Your task to perform on an android device: turn vacation reply on in the gmail app Image 0: 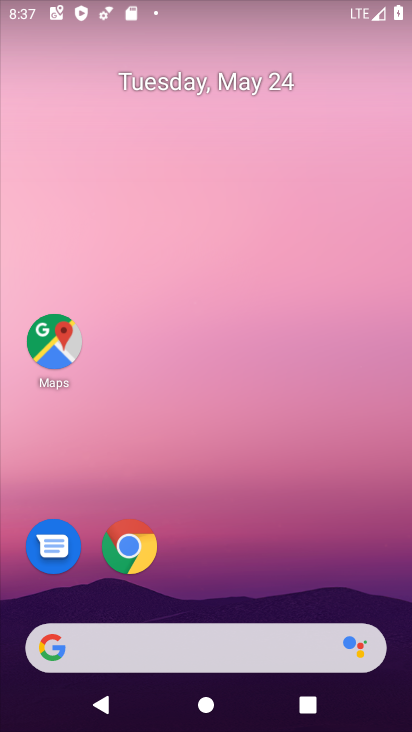
Step 0: drag from (270, 569) to (275, 0)
Your task to perform on an android device: turn vacation reply on in the gmail app Image 1: 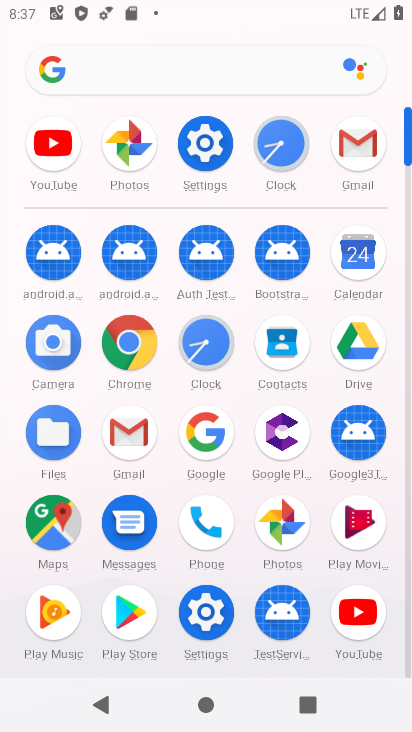
Step 1: click (357, 154)
Your task to perform on an android device: turn vacation reply on in the gmail app Image 2: 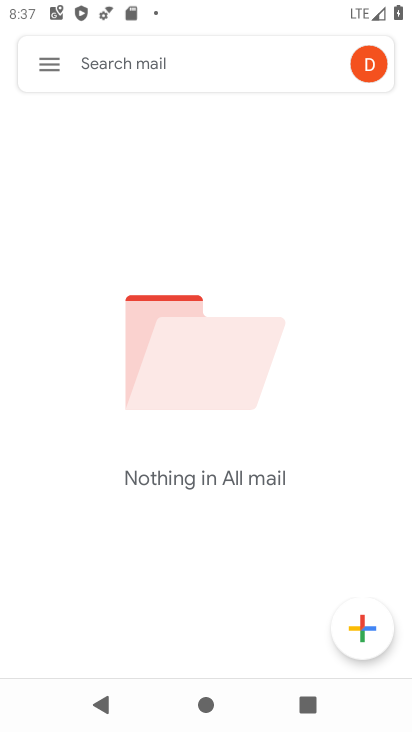
Step 2: click (48, 67)
Your task to perform on an android device: turn vacation reply on in the gmail app Image 3: 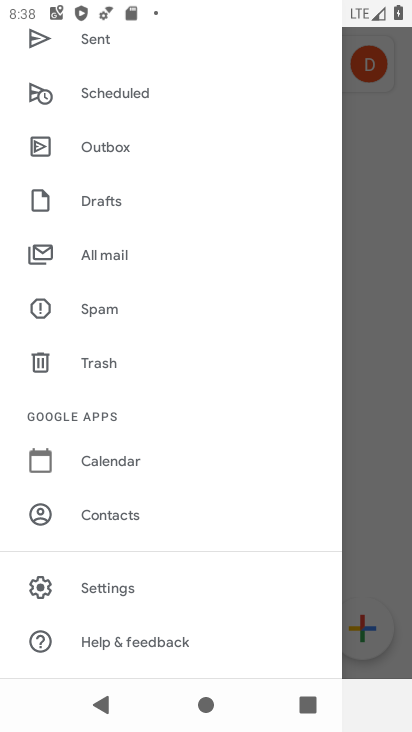
Step 3: click (143, 591)
Your task to perform on an android device: turn vacation reply on in the gmail app Image 4: 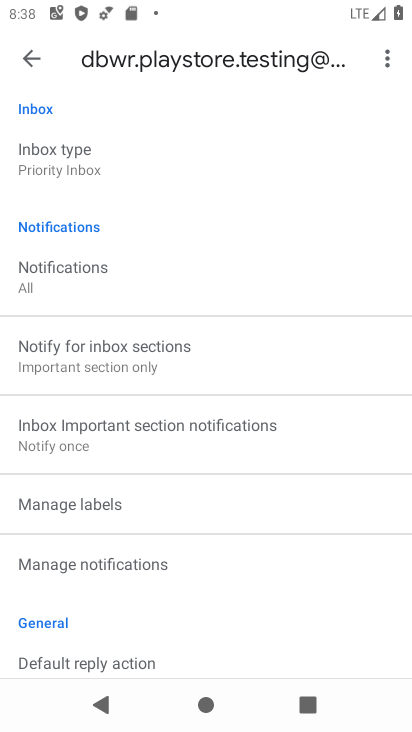
Step 4: drag from (224, 621) to (244, 1)
Your task to perform on an android device: turn vacation reply on in the gmail app Image 5: 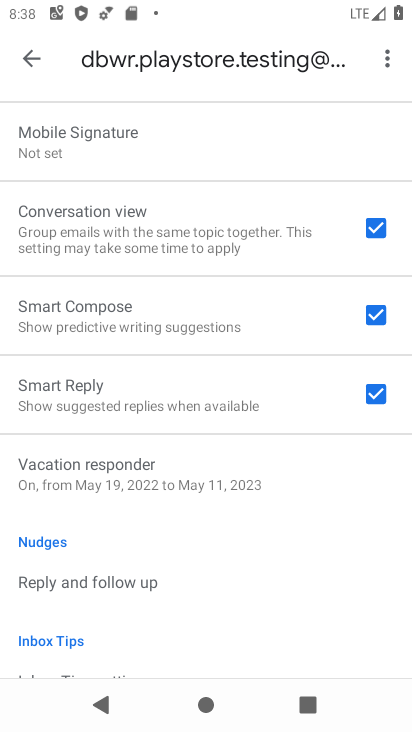
Step 5: click (197, 478)
Your task to perform on an android device: turn vacation reply on in the gmail app Image 6: 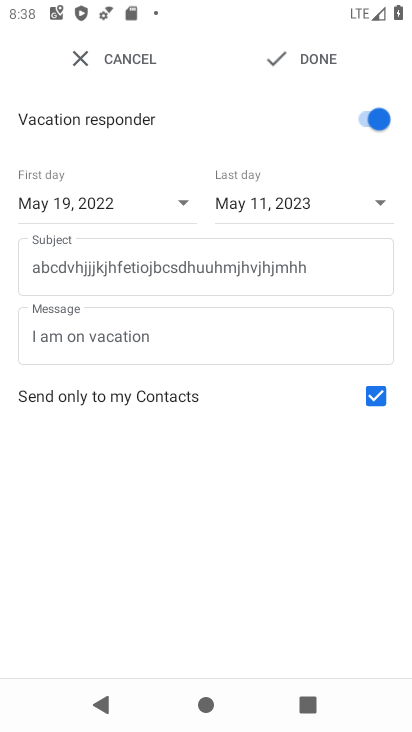
Step 6: task complete